Your task to perform on an android device: Empty the shopping cart on walmart.com. Image 0: 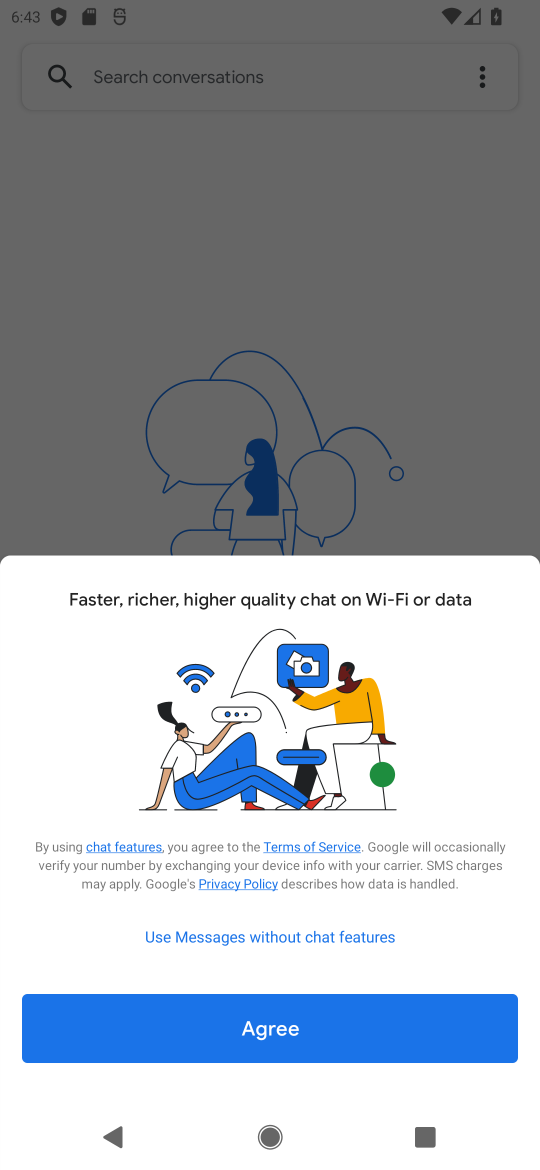
Step 0: press home button
Your task to perform on an android device: Empty the shopping cart on walmart.com. Image 1: 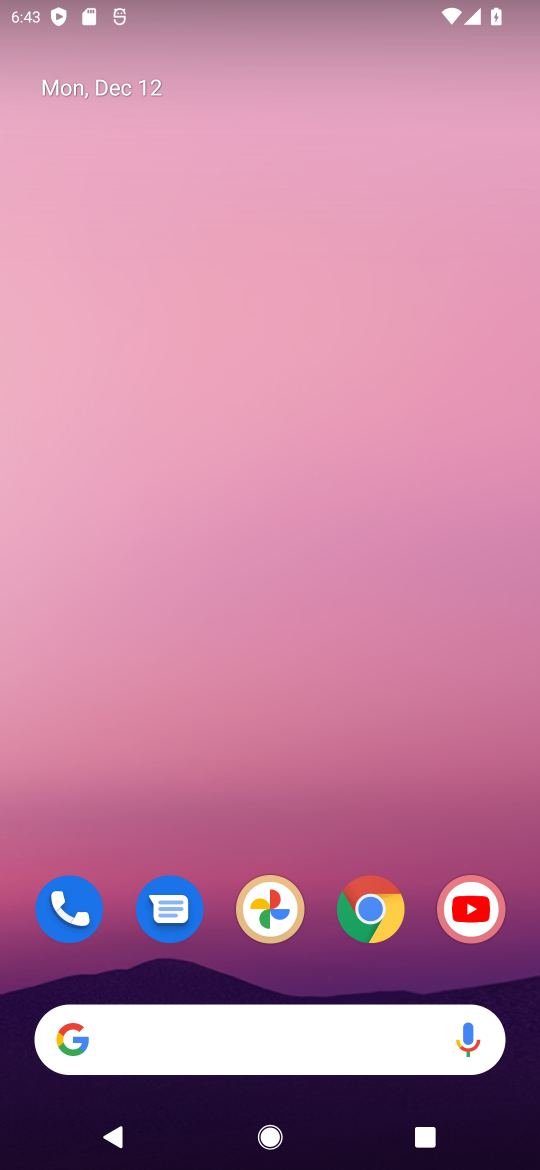
Step 1: click (352, 887)
Your task to perform on an android device: Empty the shopping cart on walmart.com. Image 2: 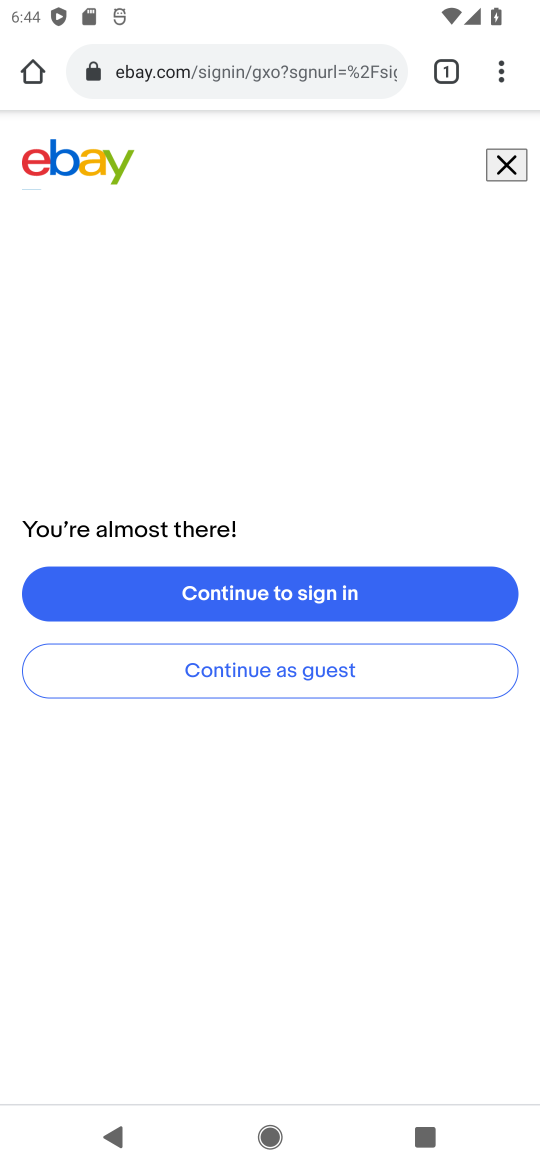
Step 2: click (166, 82)
Your task to perform on an android device: Empty the shopping cart on walmart.com. Image 3: 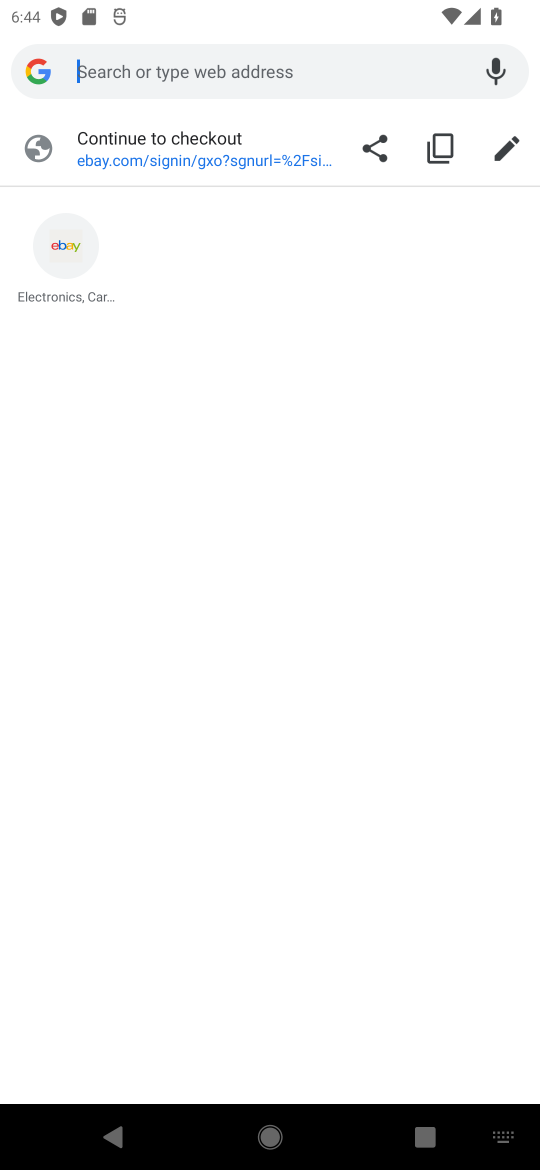
Step 3: type "walmart"
Your task to perform on an android device: Empty the shopping cart on walmart.com. Image 4: 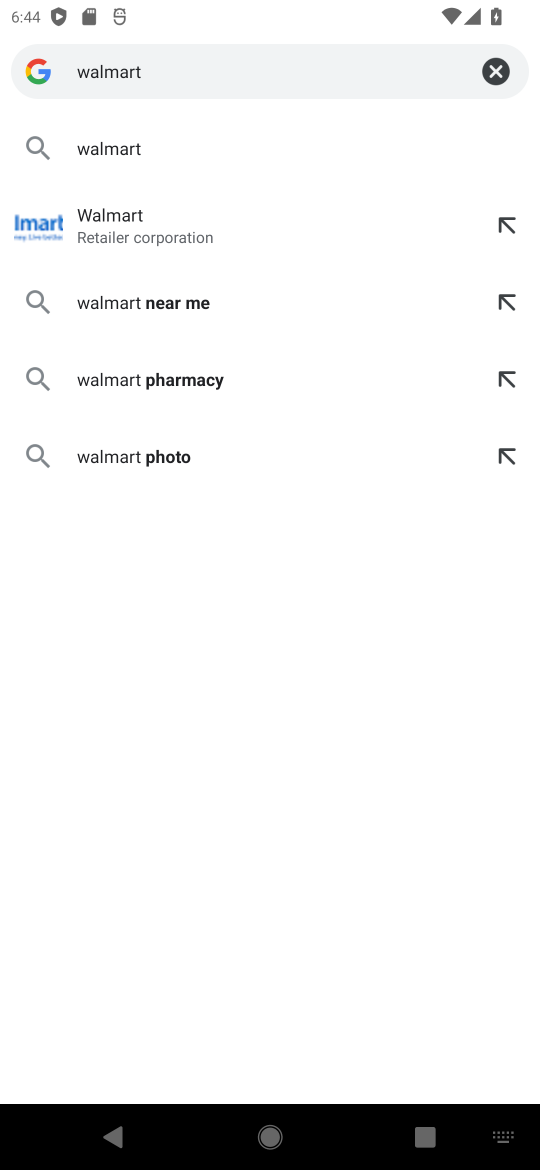
Step 4: click (119, 223)
Your task to perform on an android device: Empty the shopping cart on walmart.com. Image 5: 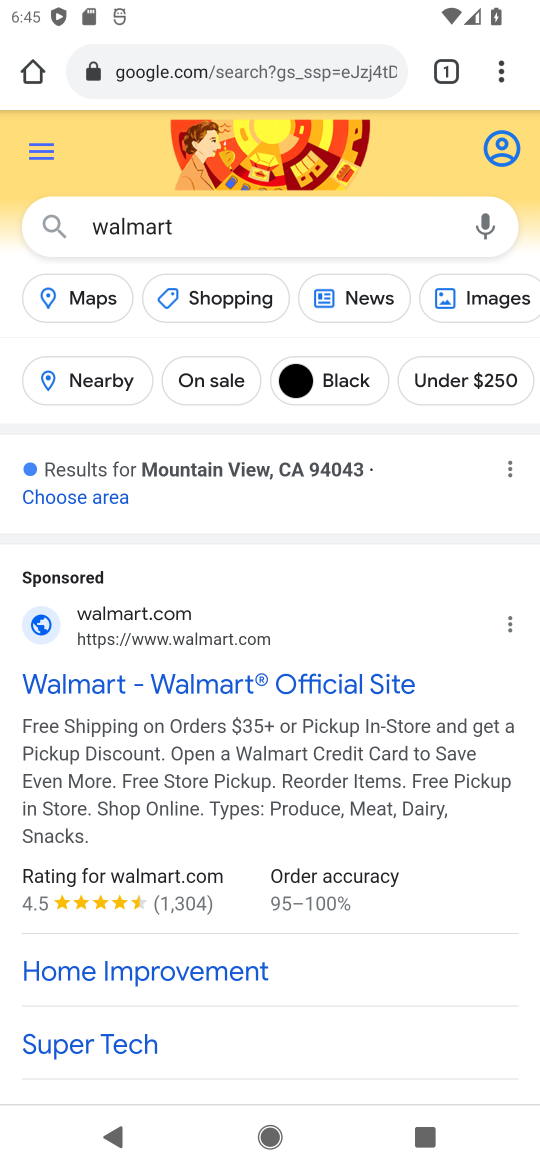
Step 5: click (231, 680)
Your task to perform on an android device: Empty the shopping cart on walmart.com. Image 6: 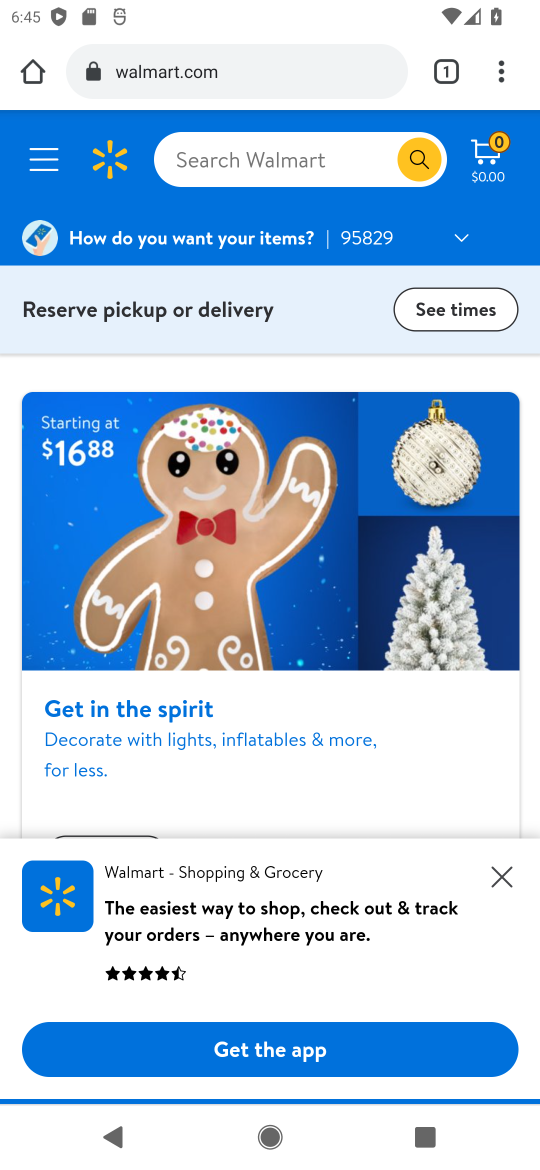
Step 6: click (502, 155)
Your task to perform on an android device: Empty the shopping cart on walmart.com. Image 7: 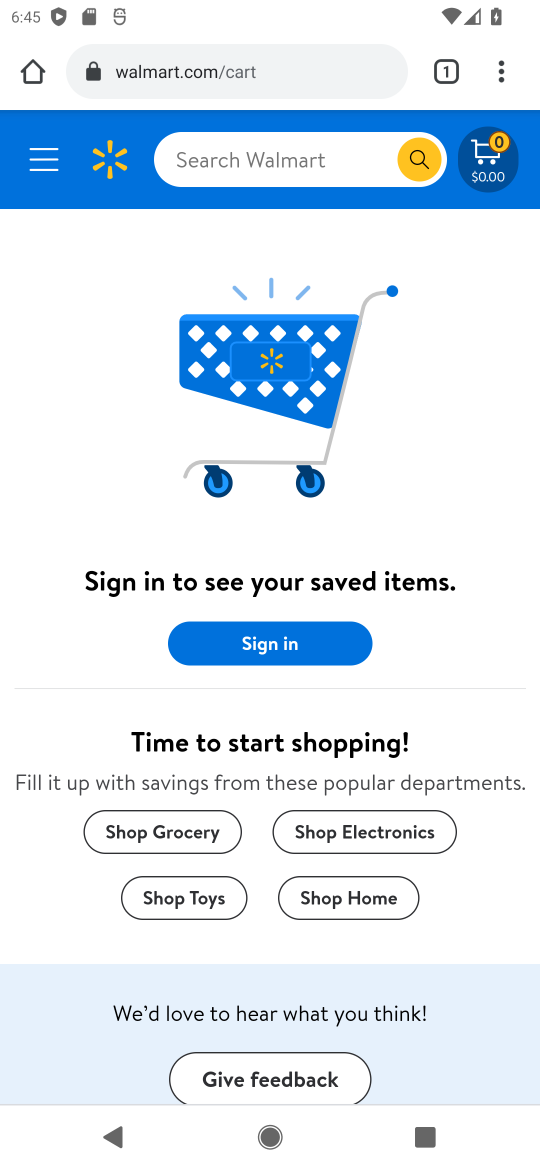
Step 7: task complete